Your task to perform on an android device: Search for the ikea sjalv lamp Image 0: 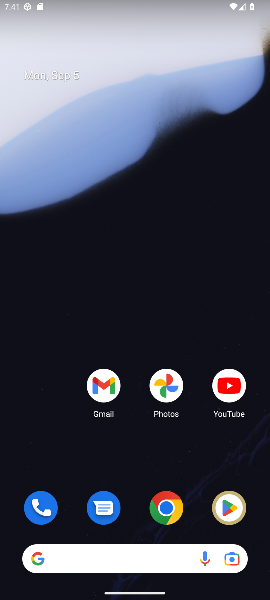
Step 0: click (163, 505)
Your task to perform on an android device: Search for the ikea sjalv lamp Image 1: 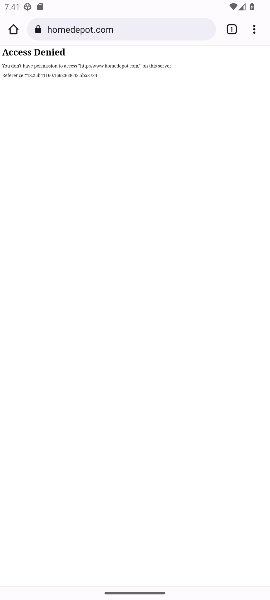
Step 1: click (116, 25)
Your task to perform on an android device: Search for the ikea sjalv lamp Image 2: 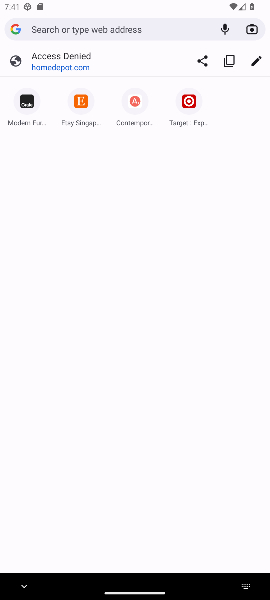
Step 2: type "ikea"
Your task to perform on an android device: Search for the ikea sjalv lamp Image 3: 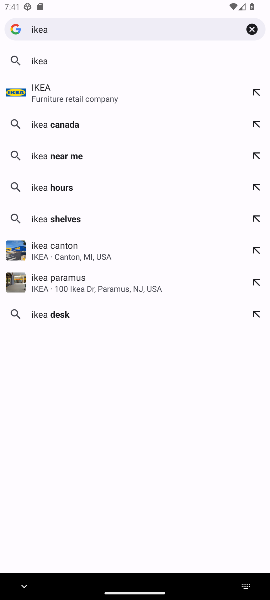
Step 3: click (23, 63)
Your task to perform on an android device: Search for the ikea sjalv lamp Image 4: 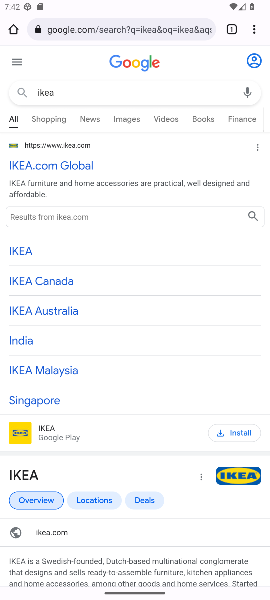
Step 4: click (21, 475)
Your task to perform on an android device: Search for the ikea sjalv lamp Image 5: 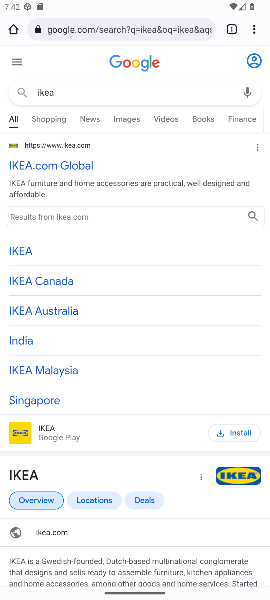
Step 5: drag from (130, 469) to (131, 212)
Your task to perform on an android device: Search for the ikea sjalv lamp Image 6: 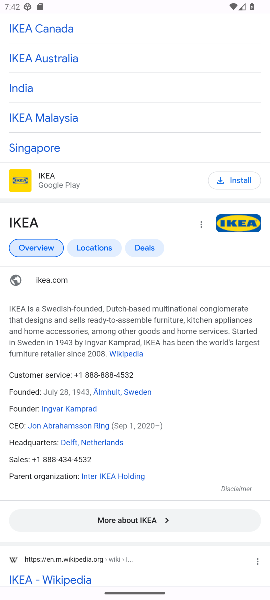
Step 6: drag from (83, 384) to (88, 552)
Your task to perform on an android device: Search for the ikea sjalv lamp Image 7: 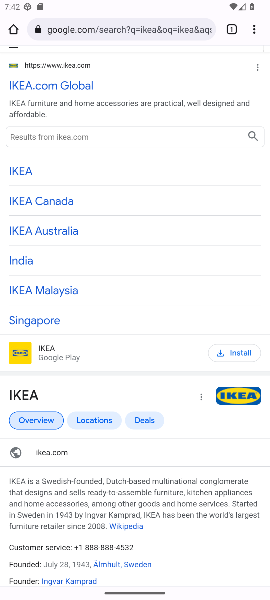
Step 7: click (27, 88)
Your task to perform on an android device: Search for the ikea sjalv lamp Image 8: 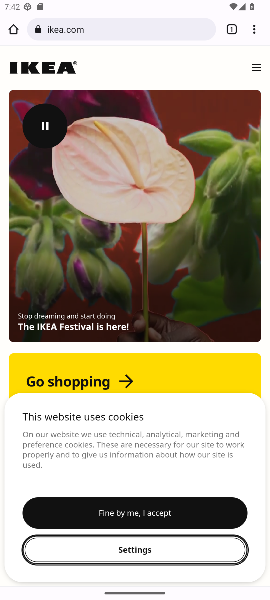
Step 8: drag from (146, 285) to (137, 136)
Your task to perform on an android device: Search for the ikea sjalv lamp Image 9: 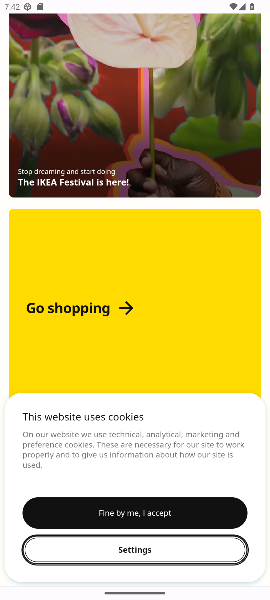
Step 9: click (95, 307)
Your task to perform on an android device: Search for the ikea sjalv lamp Image 10: 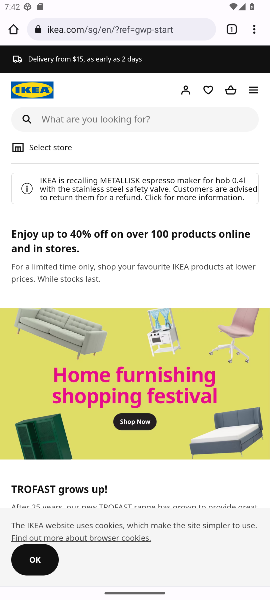
Step 10: click (80, 122)
Your task to perform on an android device: Search for the ikea sjalv lamp Image 11: 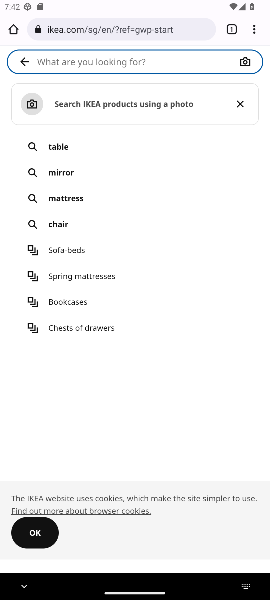
Step 11: type "sjalv lamp"
Your task to perform on an android device: Search for the ikea sjalv lamp Image 12: 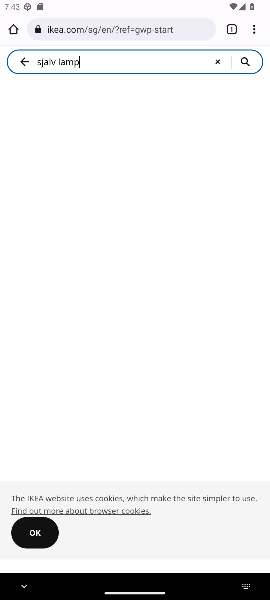
Step 12: click (243, 56)
Your task to perform on an android device: Search for the ikea sjalv lamp Image 13: 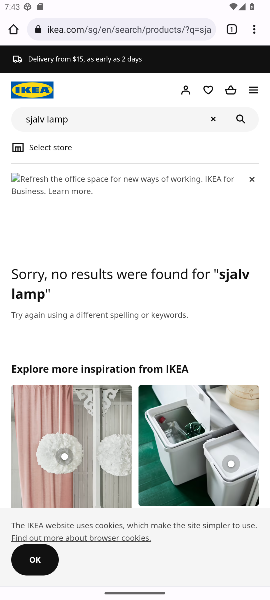
Step 13: task complete